Your task to perform on an android device: Open accessibility settings Image 0: 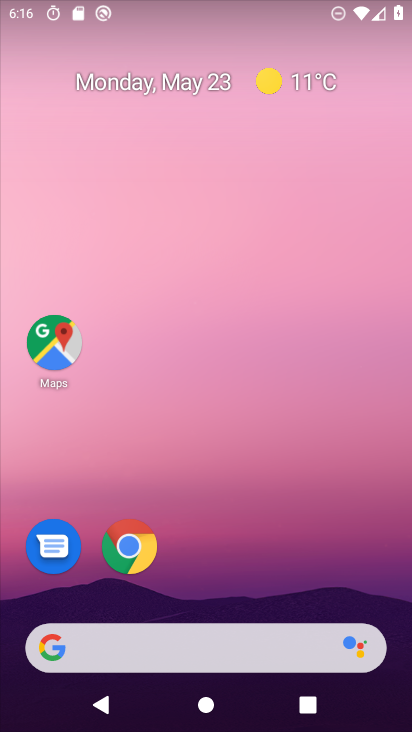
Step 0: drag from (279, 582) to (219, 104)
Your task to perform on an android device: Open accessibility settings Image 1: 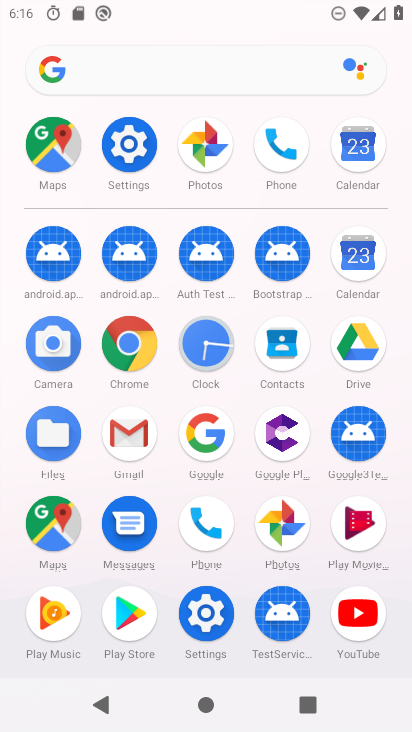
Step 1: click (125, 134)
Your task to perform on an android device: Open accessibility settings Image 2: 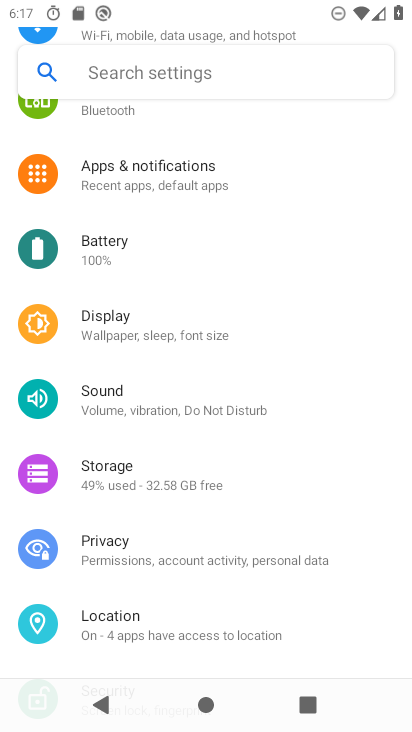
Step 2: drag from (255, 604) to (251, 378)
Your task to perform on an android device: Open accessibility settings Image 3: 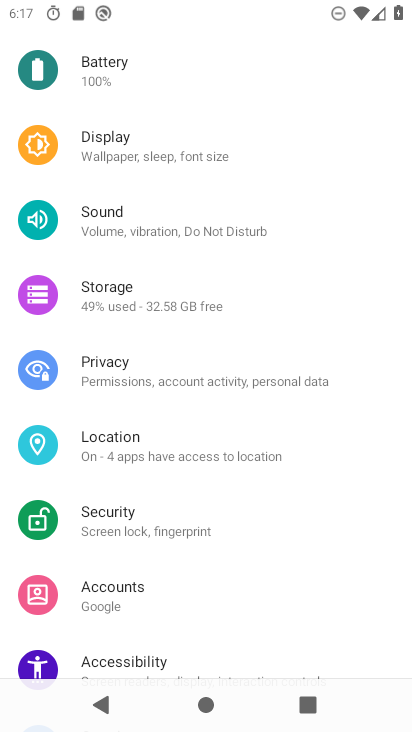
Step 3: click (143, 664)
Your task to perform on an android device: Open accessibility settings Image 4: 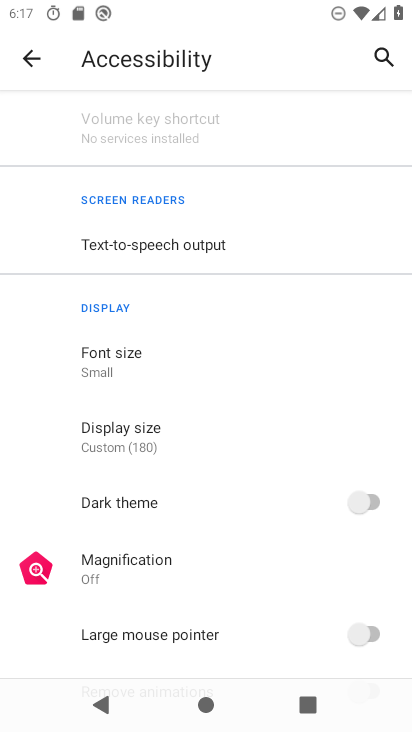
Step 4: task complete